Your task to perform on an android device: turn on location history Image 0: 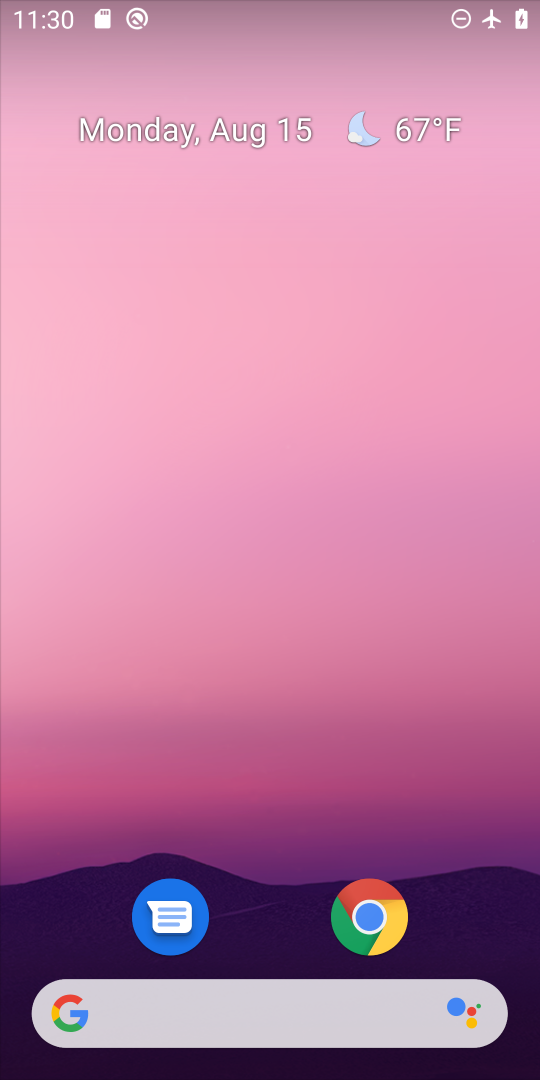
Step 0: drag from (289, 855) to (356, 13)
Your task to perform on an android device: turn on location history Image 1: 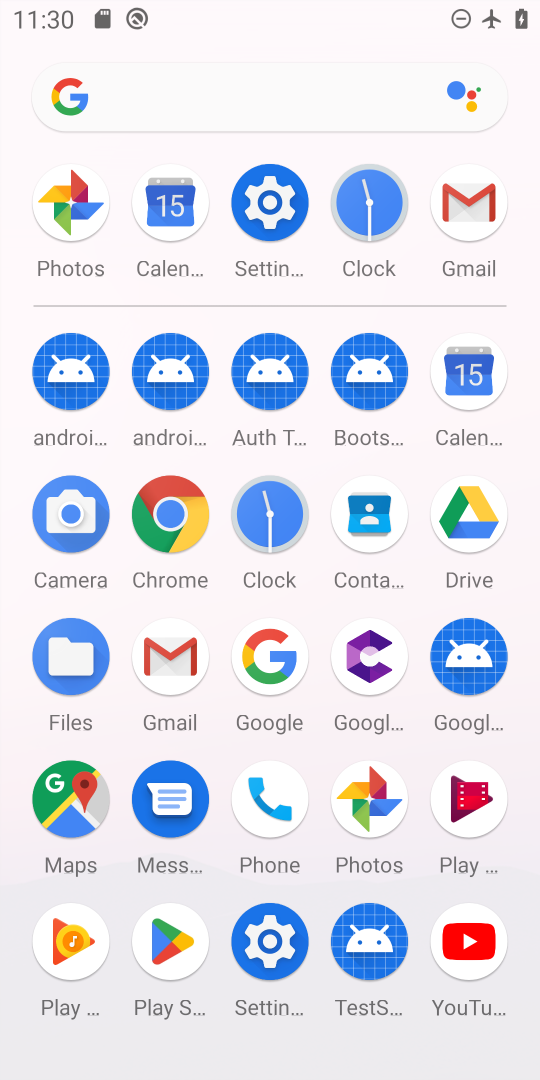
Step 1: click (276, 203)
Your task to perform on an android device: turn on location history Image 2: 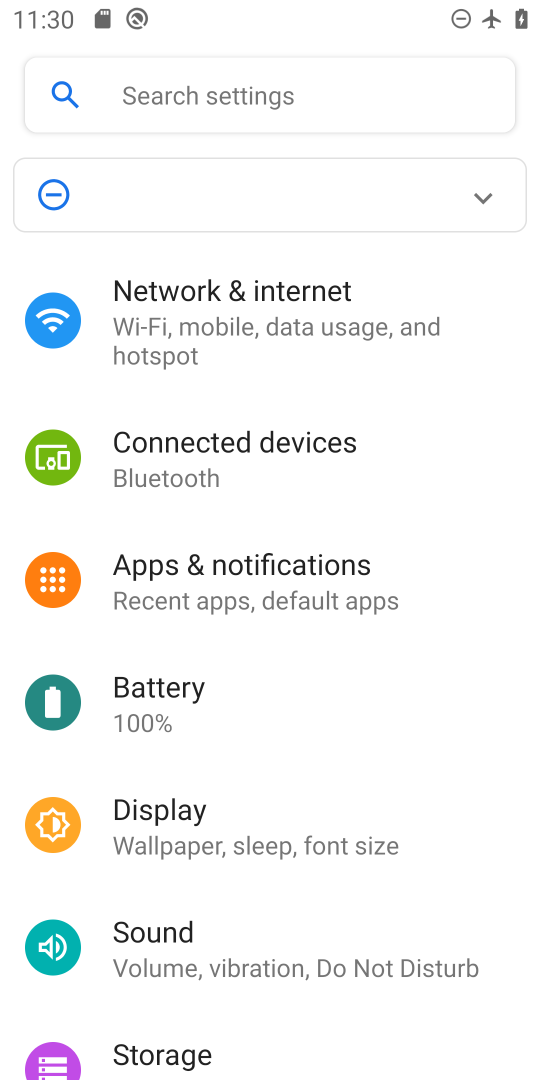
Step 2: drag from (288, 862) to (284, 78)
Your task to perform on an android device: turn on location history Image 3: 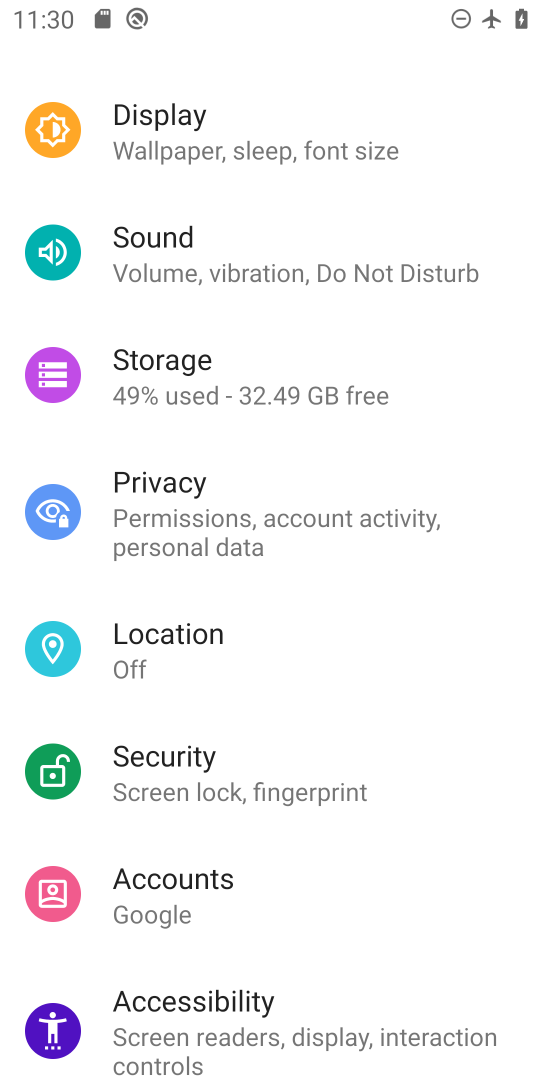
Step 3: click (236, 641)
Your task to perform on an android device: turn on location history Image 4: 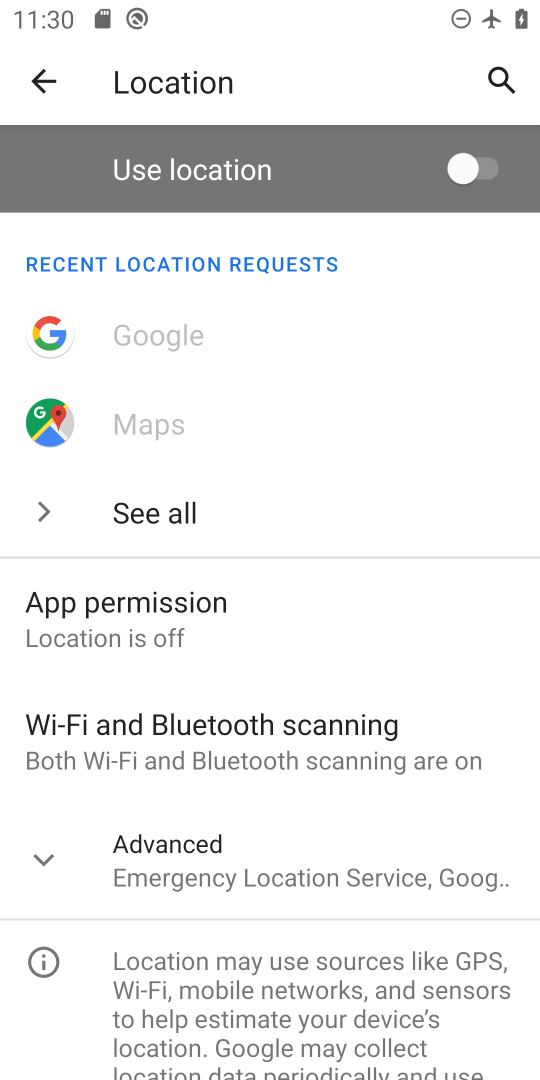
Step 4: click (48, 859)
Your task to perform on an android device: turn on location history Image 5: 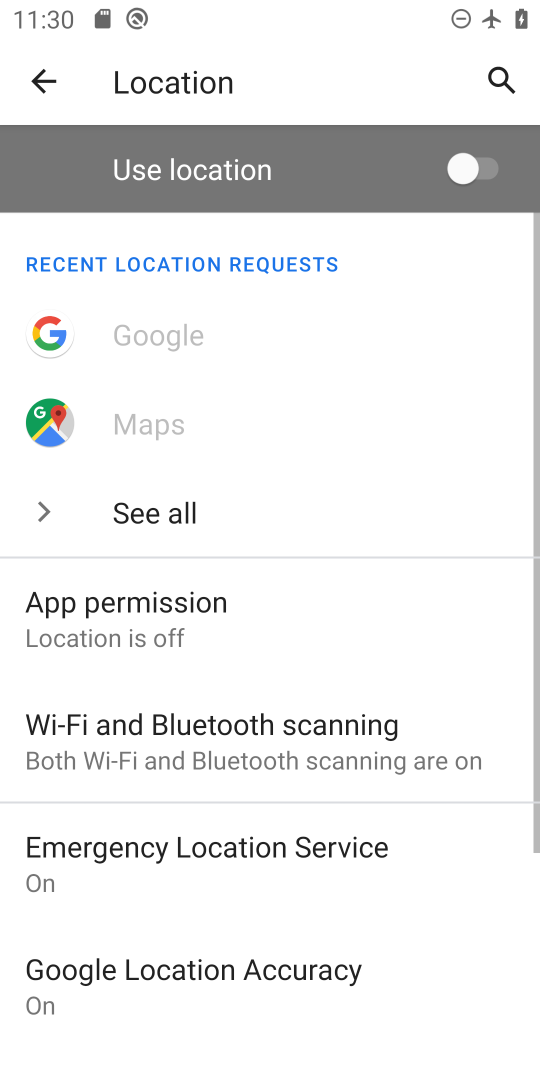
Step 5: drag from (323, 625) to (303, 214)
Your task to perform on an android device: turn on location history Image 6: 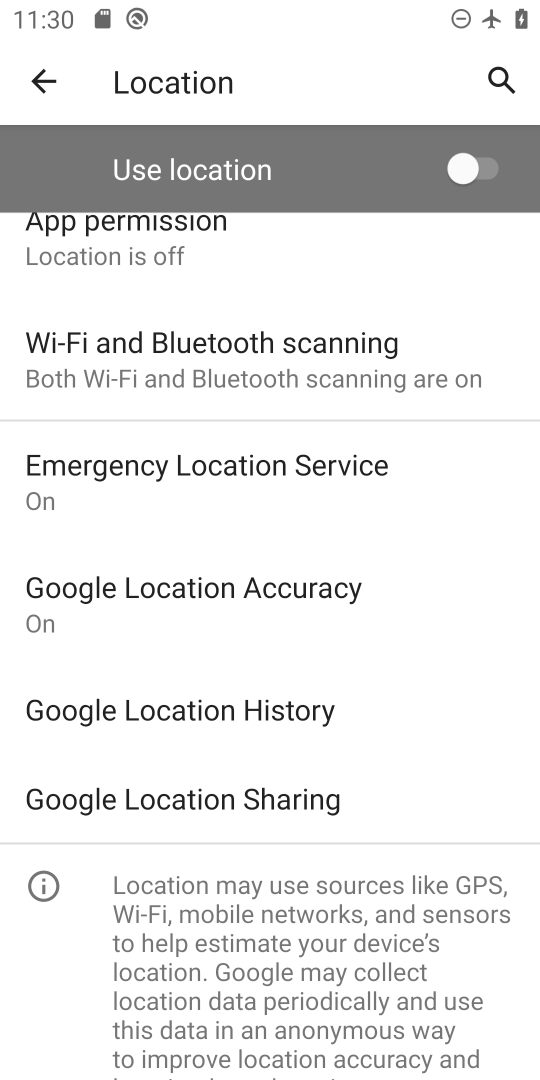
Step 6: click (288, 705)
Your task to perform on an android device: turn on location history Image 7: 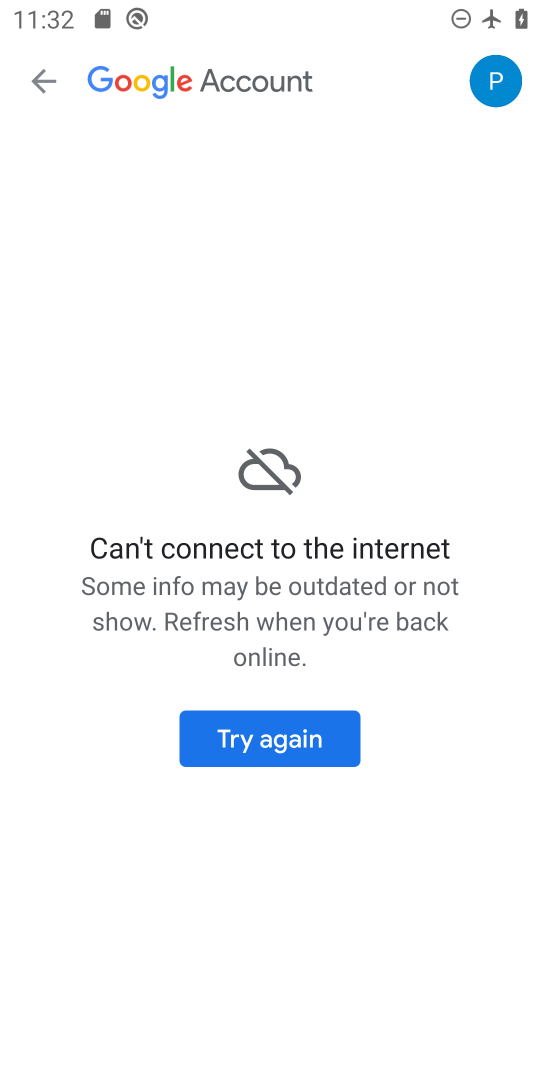
Step 7: task complete